Your task to perform on an android device: turn off javascript in the chrome app Image 0: 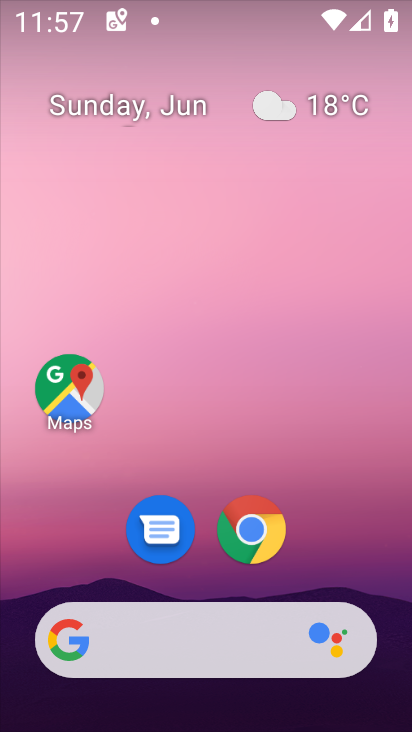
Step 0: drag from (366, 463) to (20, 136)
Your task to perform on an android device: turn off javascript in the chrome app Image 1: 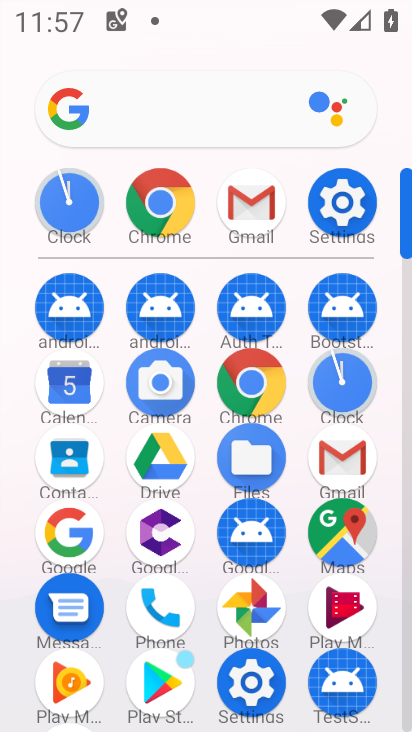
Step 1: click (165, 214)
Your task to perform on an android device: turn off javascript in the chrome app Image 2: 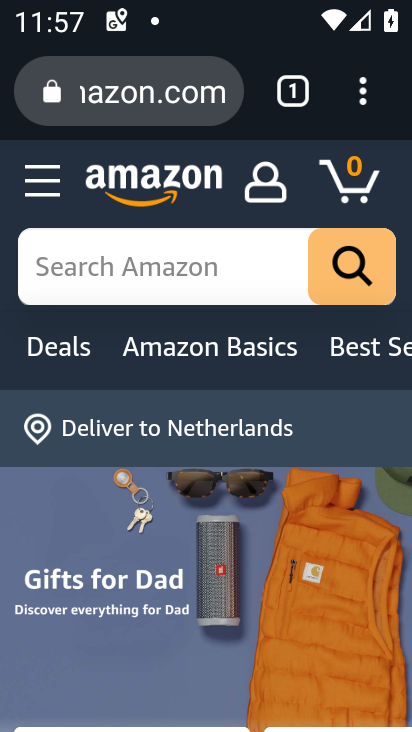
Step 2: drag from (372, 95) to (131, 554)
Your task to perform on an android device: turn off javascript in the chrome app Image 3: 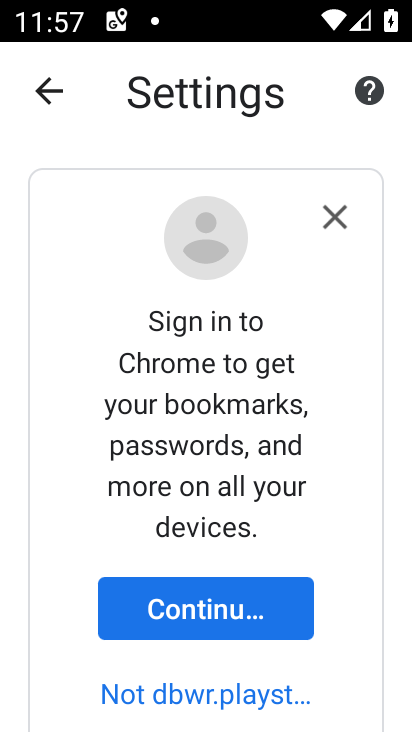
Step 3: drag from (300, 645) to (334, 241)
Your task to perform on an android device: turn off javascript in the chrome app Image 4: 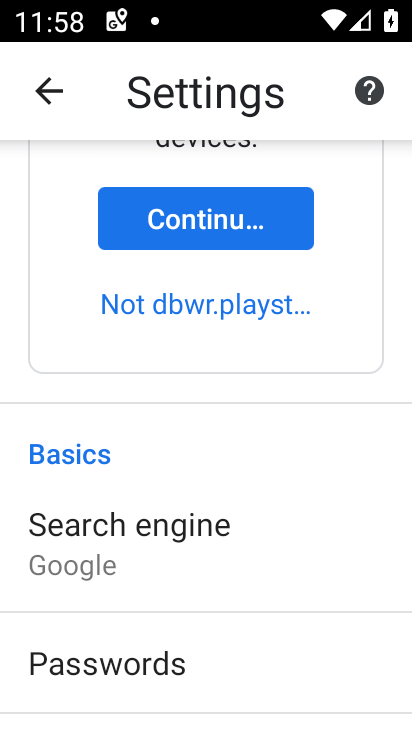
Step 4: drag from (268, 665) to (365, 226)
Your task to perform on an android device: turn off javascript in the chrome app Image 5: 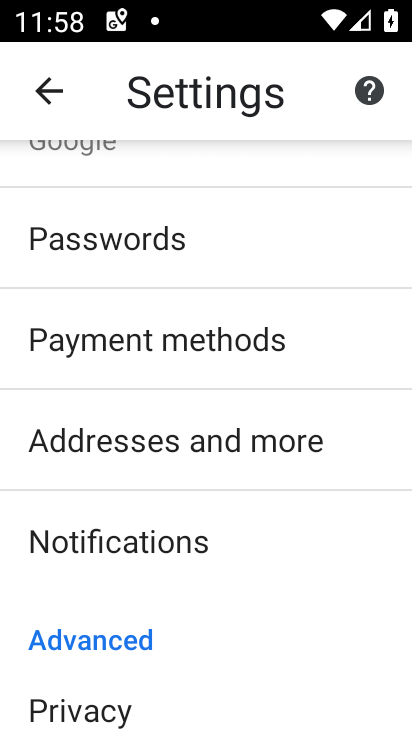
Step 5: drag from (237, 596) to (350, 197)
Your task to perform on an android device: turn off javascript in the chrome app Image 6: 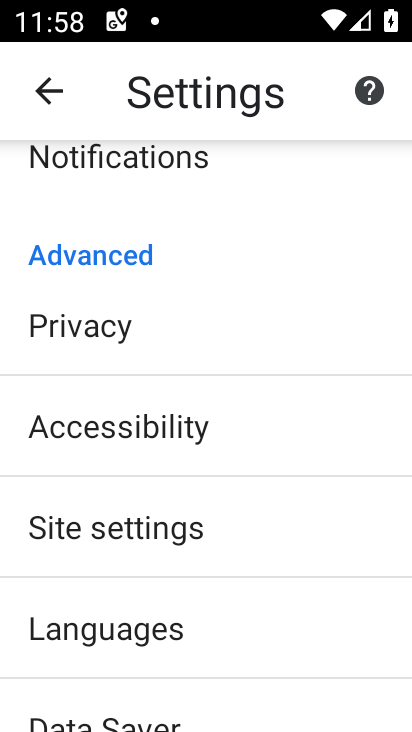
Step 6: click (146, 520)
Your task to perform on an android device: turn off javascript in the chrome app Image 7: 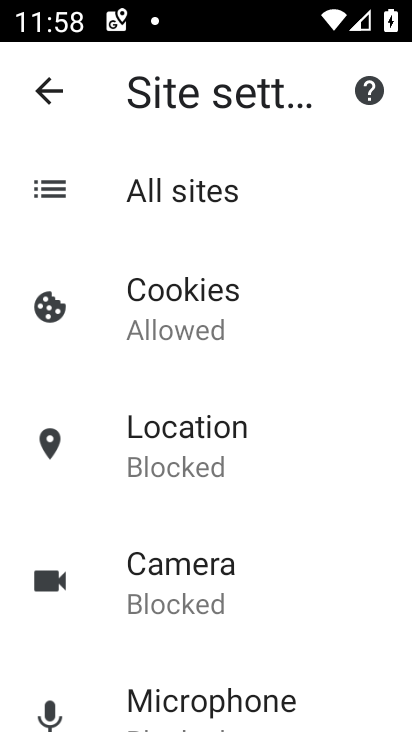
Step 7: drag from (248, 608) to (313, 153)
Your task to perform on an android device: turn off javascript in the chrome app Image 8: 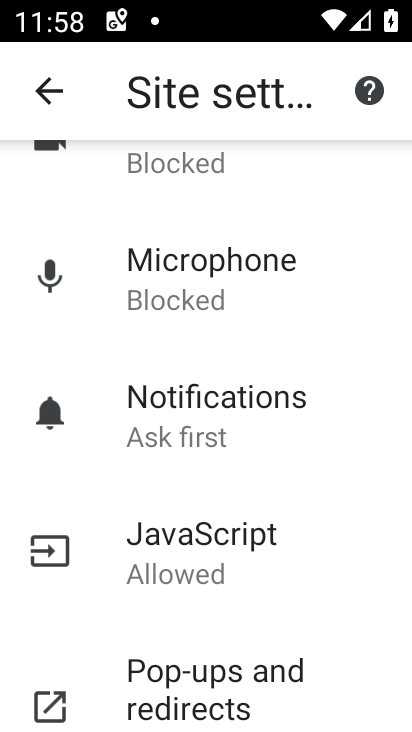
Step 8: click (218, 568)
Your task to perform on an android device: turn off javascript in the chrome app Image 9: 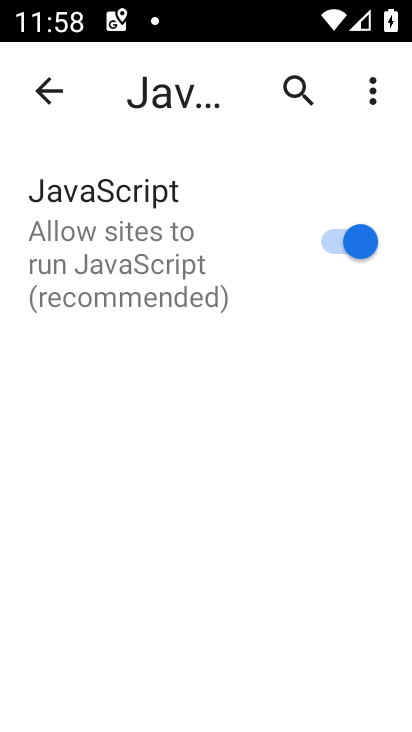
Step 9: click (342, 259)
Your task to perform on an android device: turn off javascript in the chrome app Image 10: 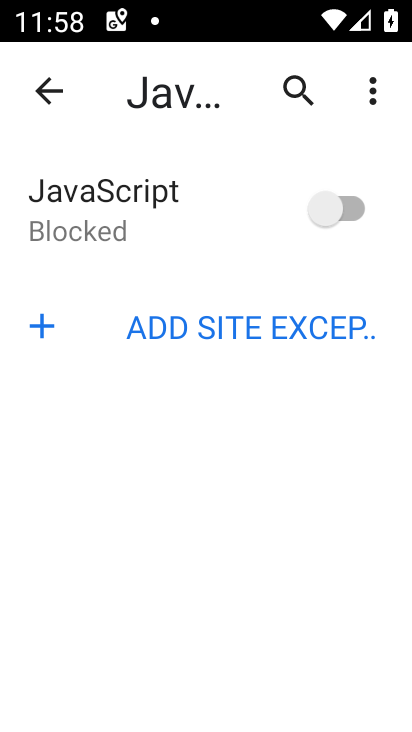
Step 10: task complete